Your task to perform on an android device: choose inbox layout in the gmail app Image 0: 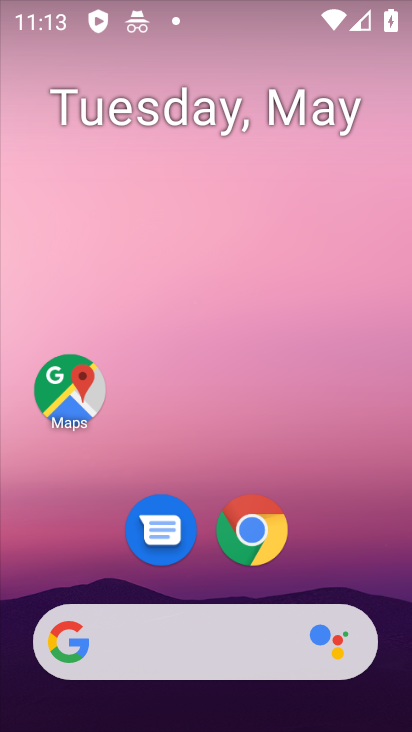
Step 0: drag from (351, 454) to (367, 122)
Your task to perform on an android device: choose inbox layout in the gmail app Image 1: 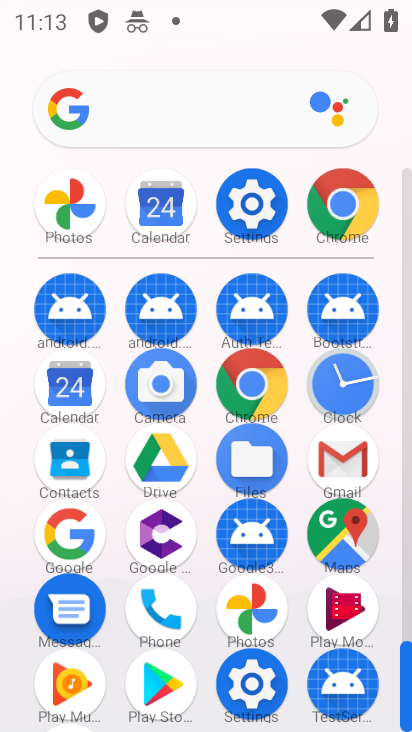
Step 1: click (340, 459)
Your task to perform on an android device: choose inbox layout in the gmail app Image 2: 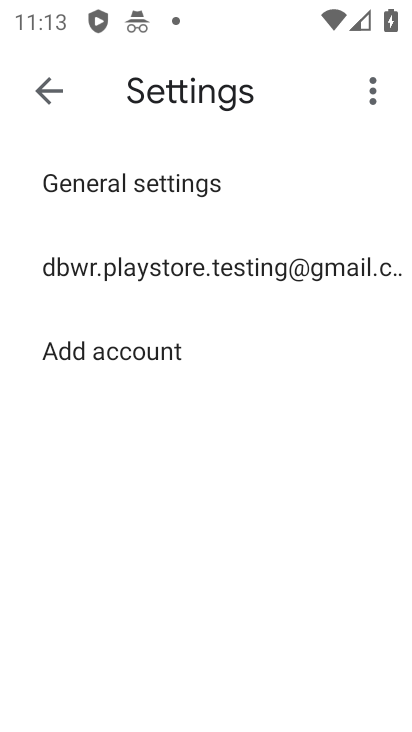
Step 2: click (317, 267)
Your task to perform on an android device: choose inbox layout in the gmail app Image 3: 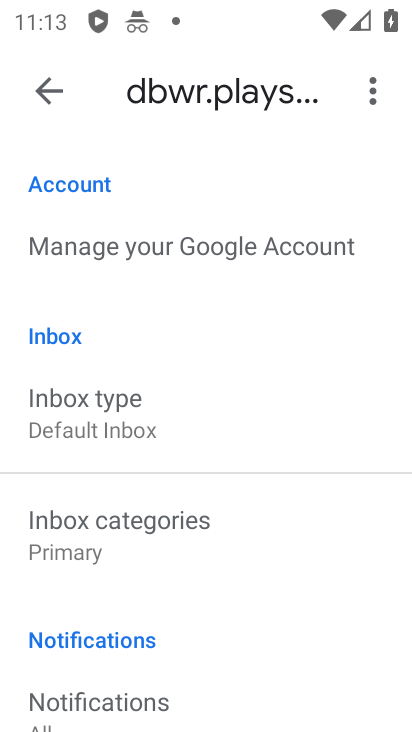
Step 3: click (125, 397)
Your task to perform on an android device: choose inbox layout in the gmail app Image 4: 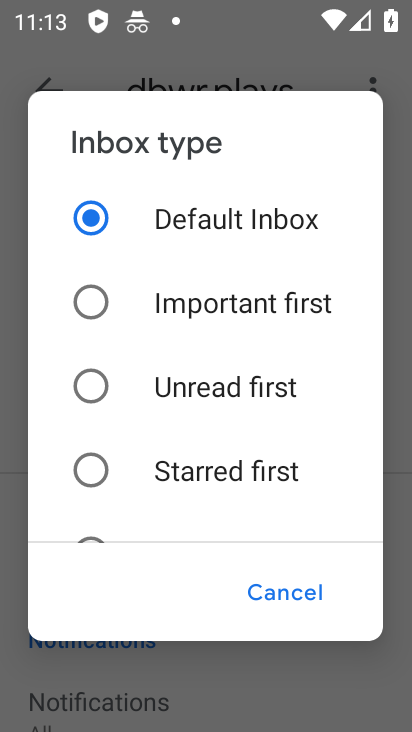
Step 4: task complete